Your task to perform on an android device: allow notifications from all sites in the chrome app Image 0: 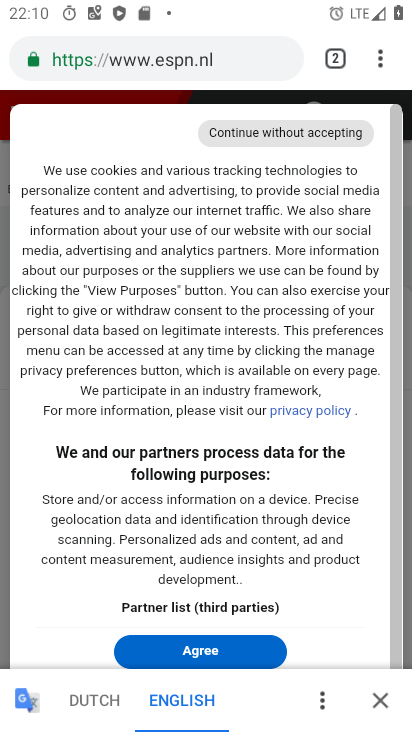
Step 0: press home button
Your task to perform on an android device: allow notifications from all sites in the chrome app Image 1: 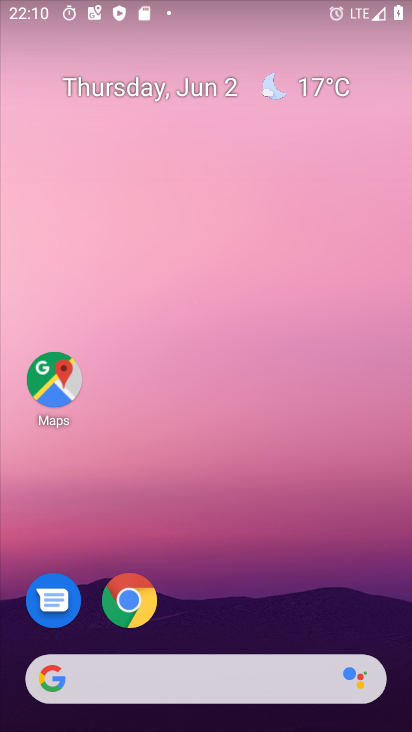
Step 1: drag from (353, 599) to (382, 269)
Your task to perform on an android device: allow notifications from all sites in the chrome app Image 2: 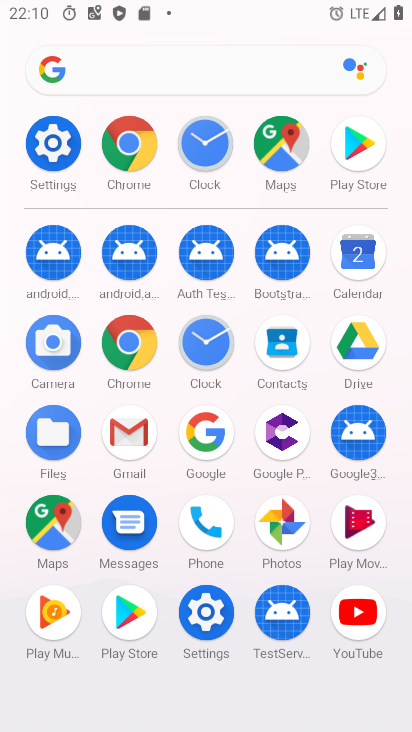
Step 2: click (132, 445)
Your task to perform on an android device: allow notifications from all sites in the chrome app Image 3: 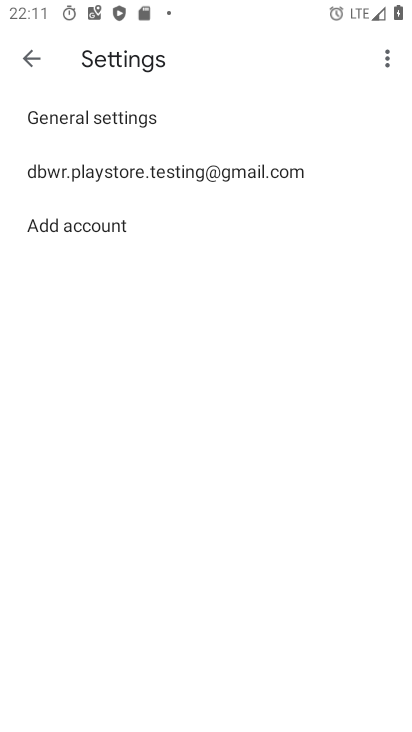
Step 3: click (179, 175)
Your task to perform on an android device: allow notifications from all sites in the chrome app Image 4: 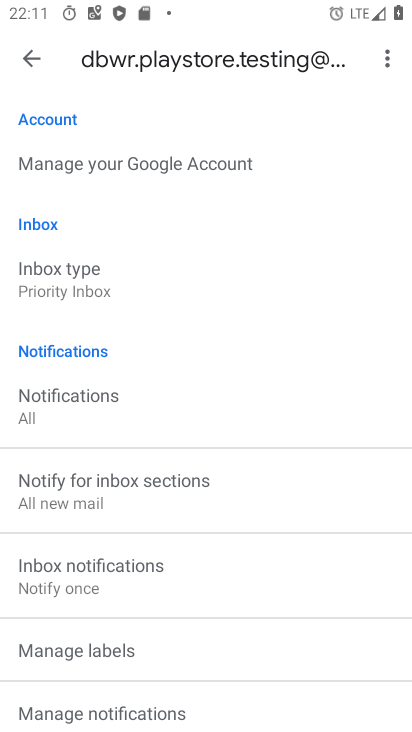
Step 4: drag from (278, 367) to (292, 246)
Your task to perform on an android device: allow notifications from all sites in the chrome app Image 5: 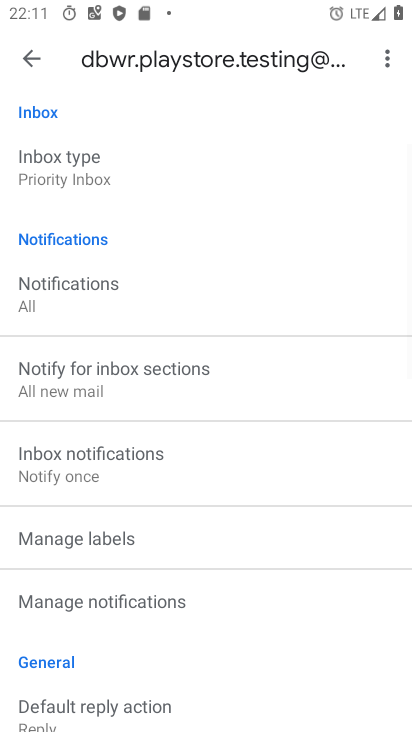
Step 5: drag from (318, 410) to (333, 316)
Your task to perform on an android device: allow notifications from all sites in the chrome app Image 6: 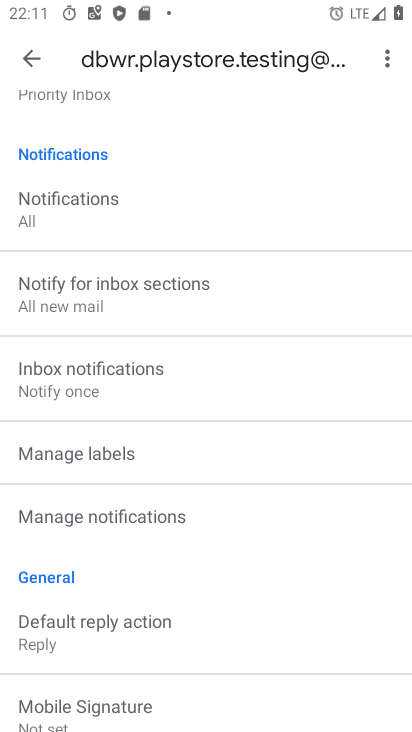
Step 6: drag from (325, 409) to (330, 274)
Your task to perform on an android device: allow notifications from all sites in the chrome app Image 7: 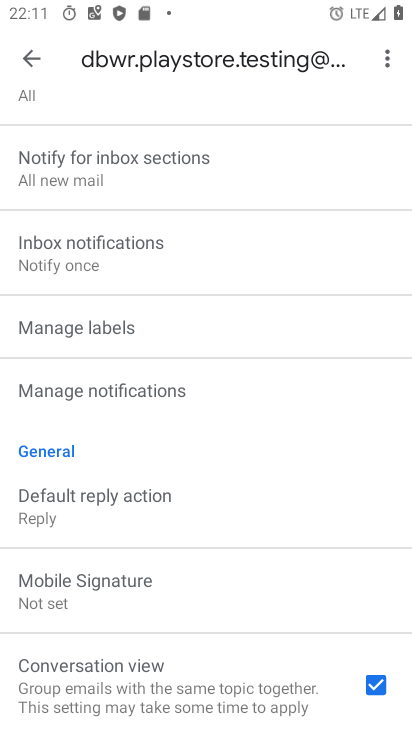
Step 7: drag from (319, 387) to (318, 325)
Your task to perform on an android device: allow notifications from all sites in the chrome app Image 8: 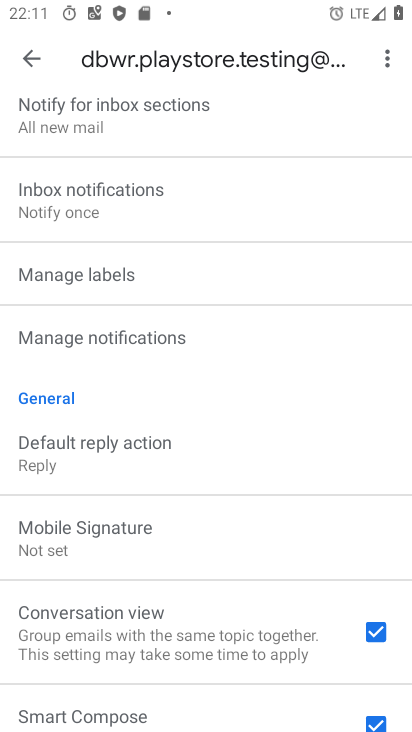
Step 8: press back button
Your task to perform on an android device: allow notifications from all sites in the chrome app Image 9: 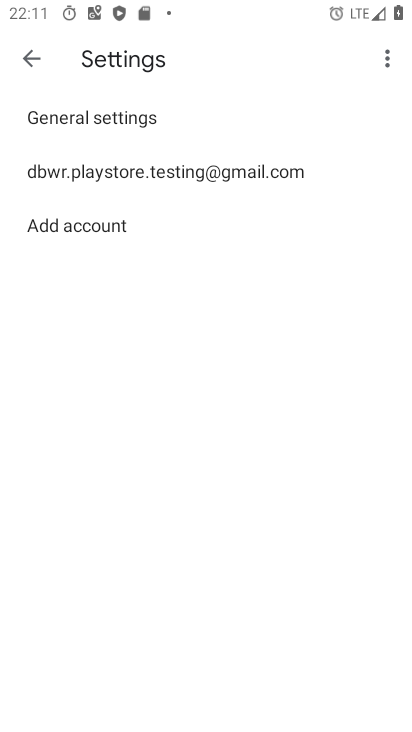
Step 9: press back button
Your task to perform on an android device: allow notifications from all sites in the chrome app Image 10: 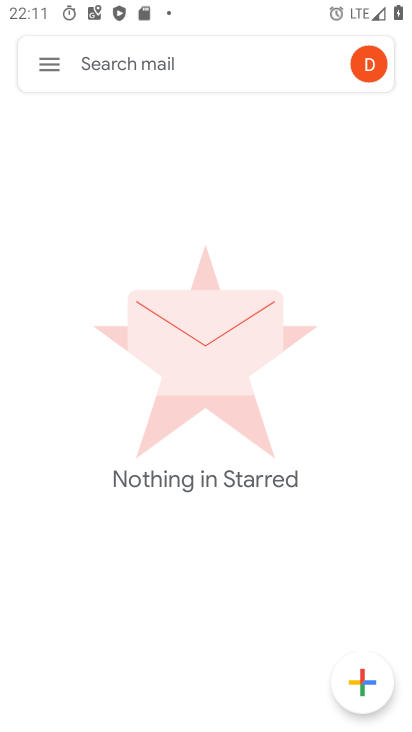
Step 10: press back button
Your task to perform on an android device: allow notifications from all sites in the chrome app Image 11: 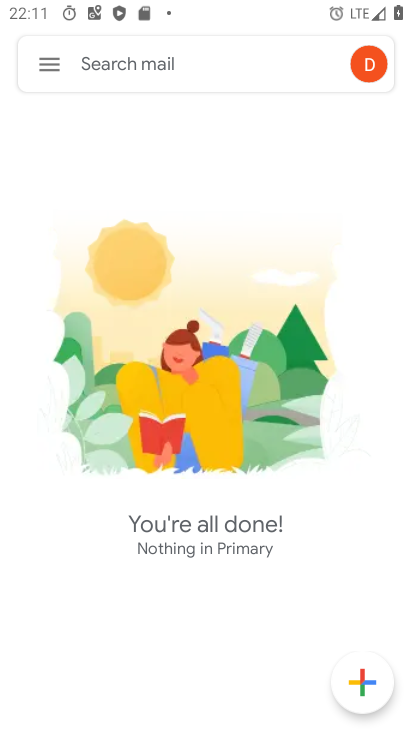
Step 11: press back button
Your task to perform on an android device: allow notifications from all sites in the chrome app Image 12: 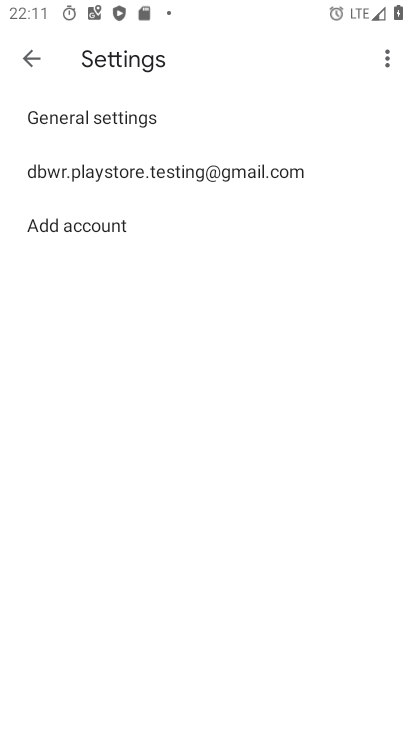
Step 12: press home button
Your task to perform on an android device: allow notifications from all sites in the chrome app Image 13: 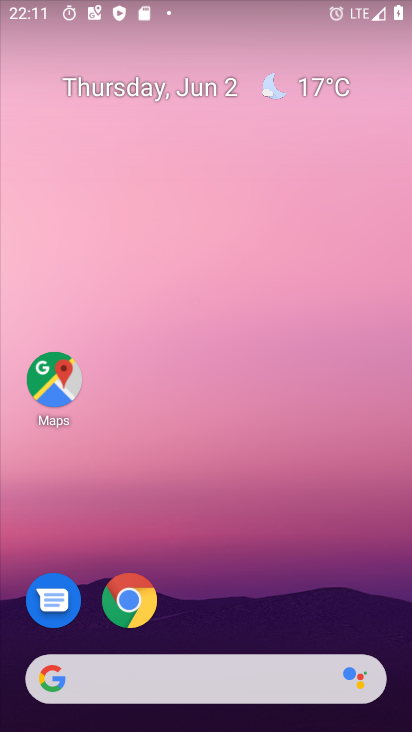
Step 13: drag from (340, 516) to (358, 178)
Your task to perform on an android device: allow notifications from all sites in the chrome app Image 14: 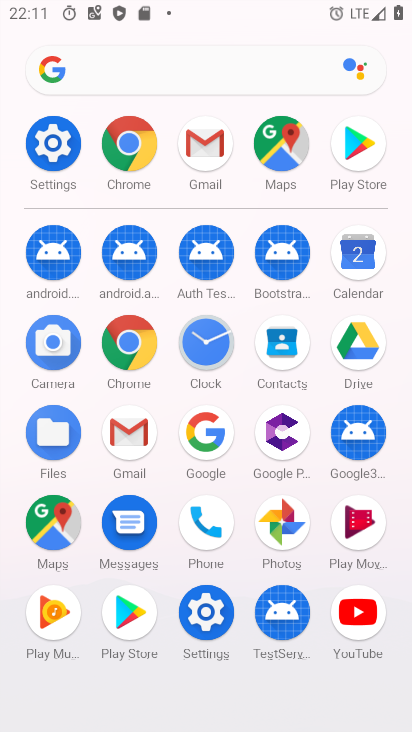
Step 14: click (140, 346)
Your task to perform on an android device: allow notifications from all sites in the chrome app Image 15: 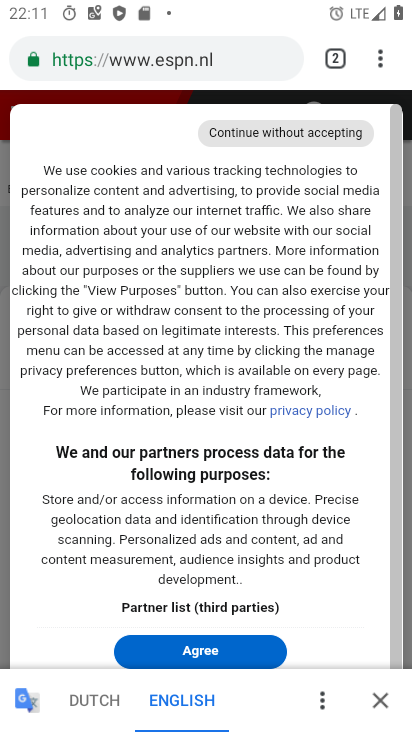
Step 15: click (382, 64)
Your task to perform on an android device: allow notifications from all sites in the chrome app Image 16: 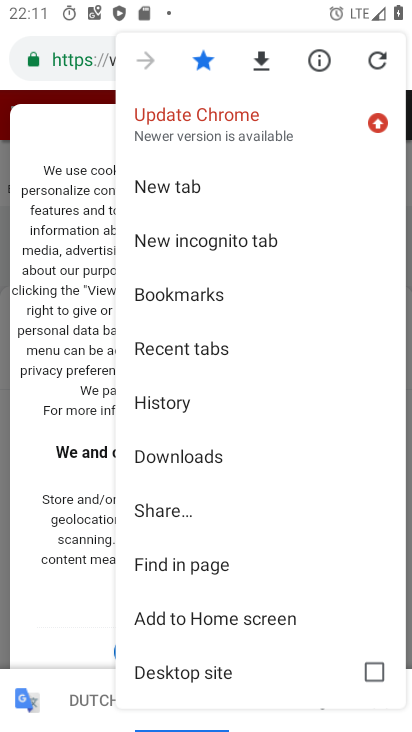
Step 16: drag from (301, 474) to (334, 302)
Your task to perform on an android device: allow notifications from all sites in the chrome app Image 17: 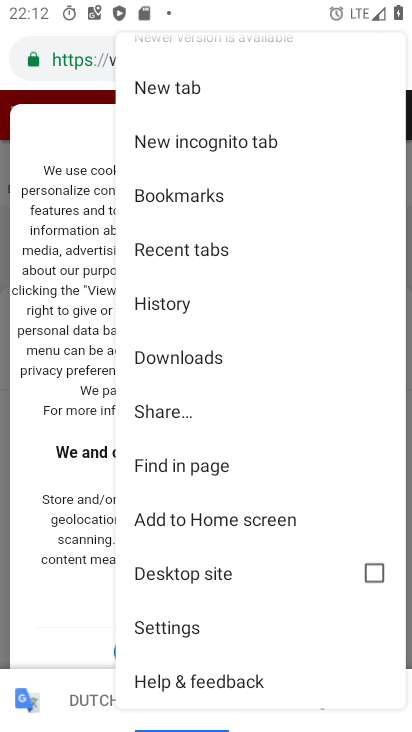
Step 17: click (198, 630)
Your task to perform on an android device: allow notifications from all sites in the chrome app Image 18: 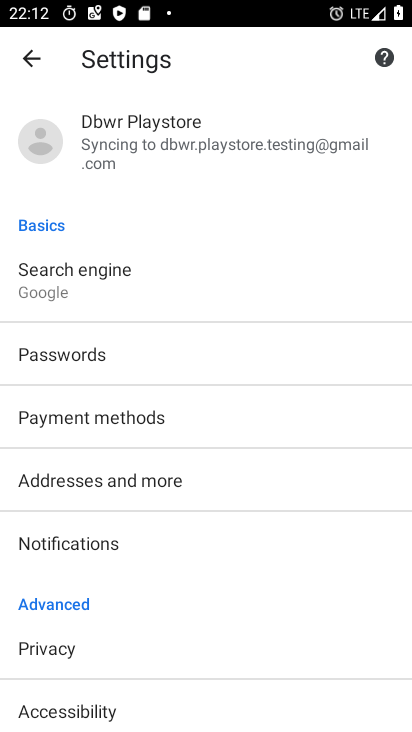
Step 18: drag from (314, 573) to (319, 424)
Your task to perform on an android device: allow notifications from all sites in the chrome app Image 19: 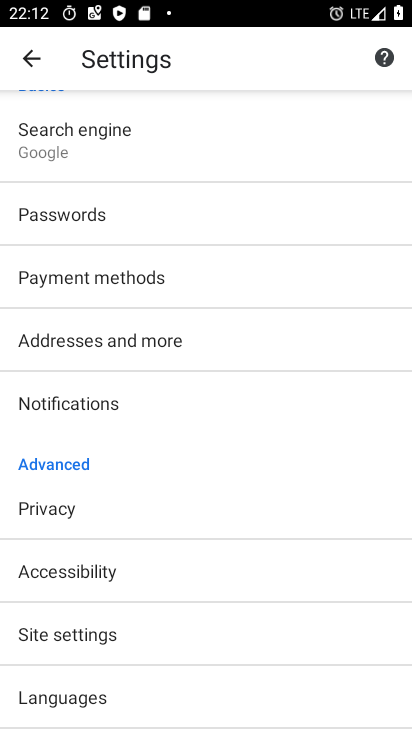
Step 19: drag from (311, 620) to (323, 372)
Your task to perform on an android device: allow notifications from all sites in the chrome app Image 20: 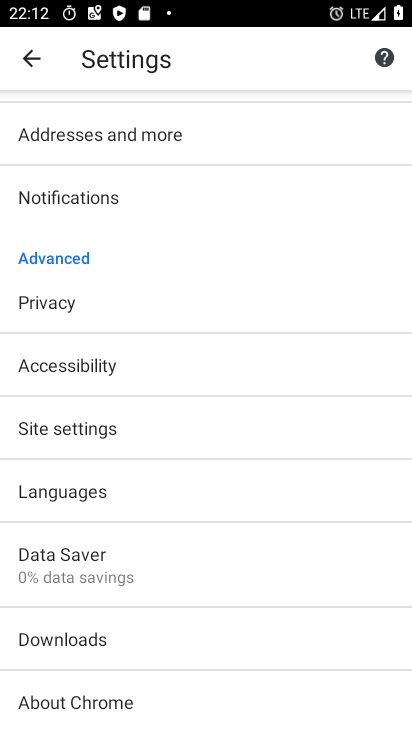
Step 20: click (239, 429)
Your task to perform on an android device: allow notifications from all sites in the chrome app Image 21: 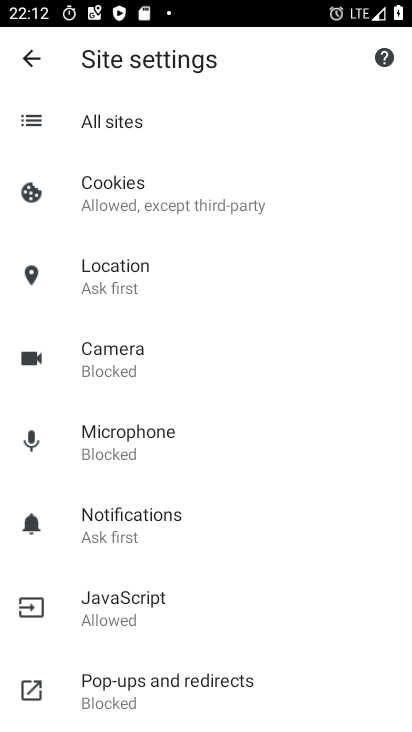
Step 21: click (178, 530)
Your task to perform on an android device: allow notifications from all sites in the chrome app Image 22: 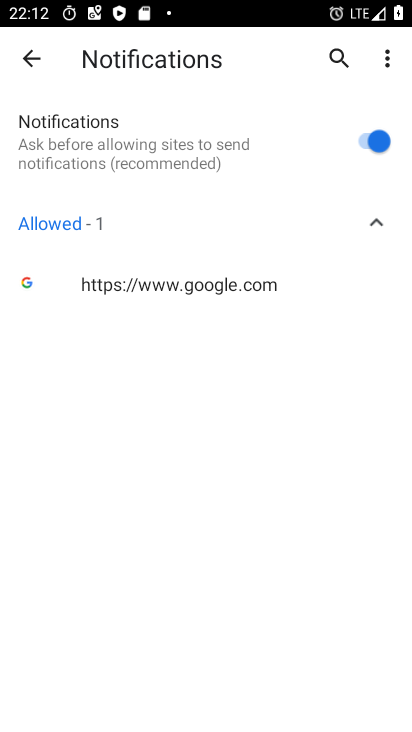
Step 22: task complete